Your task to perform on an android device: When is my next appointment? Image 0: 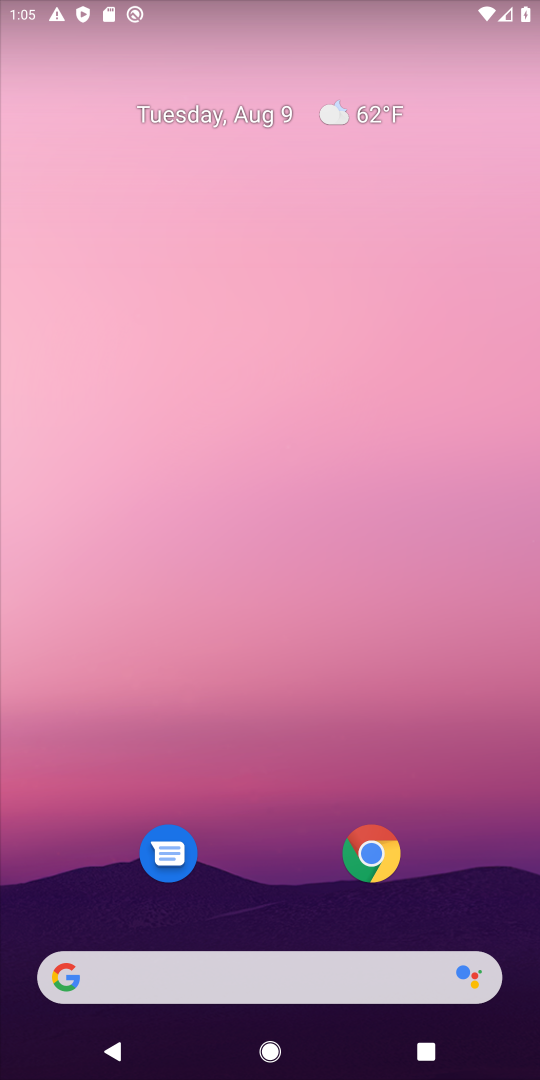
Step 0: drag from (297, 863) to (326, 17)
Your task to perform on an android device: When is my next appointment? Image 1: 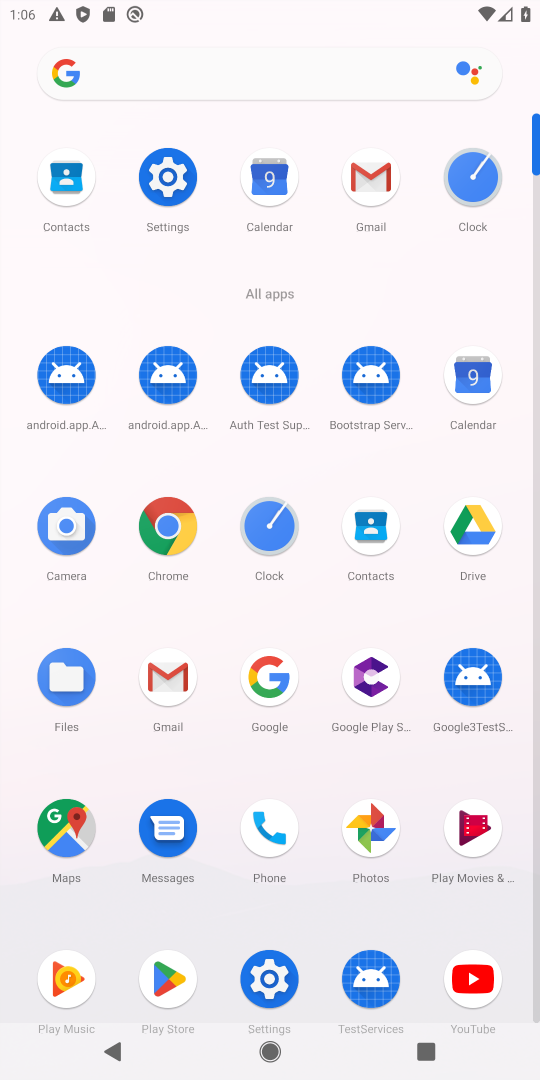
Step 1: click (478, 374)
Your task to perform on an android device: When is my next appointment? Image 2: 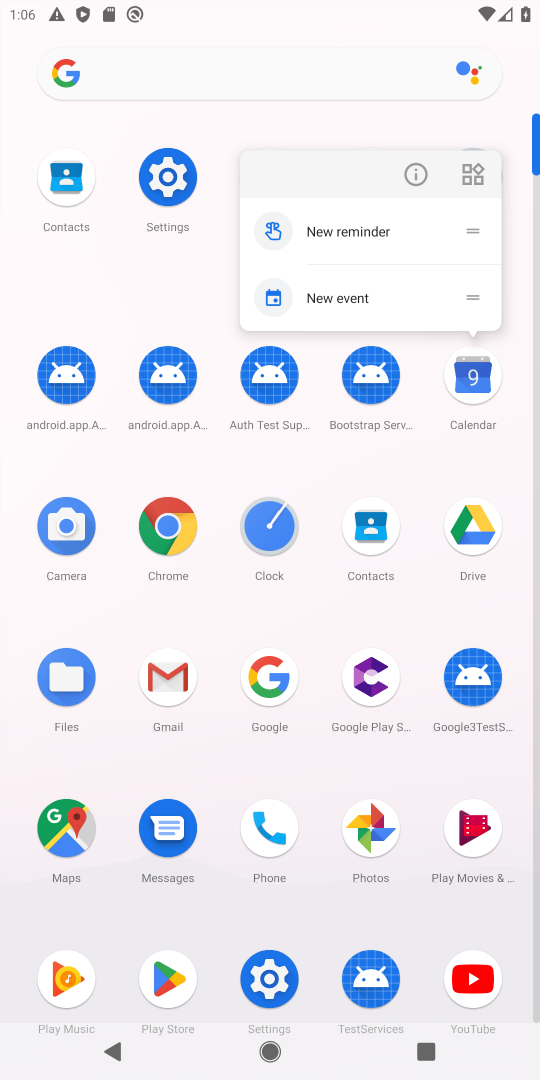
Step 2: click (473, 393)
Your task to perform on an android device: When is my next appointment? Image 3: 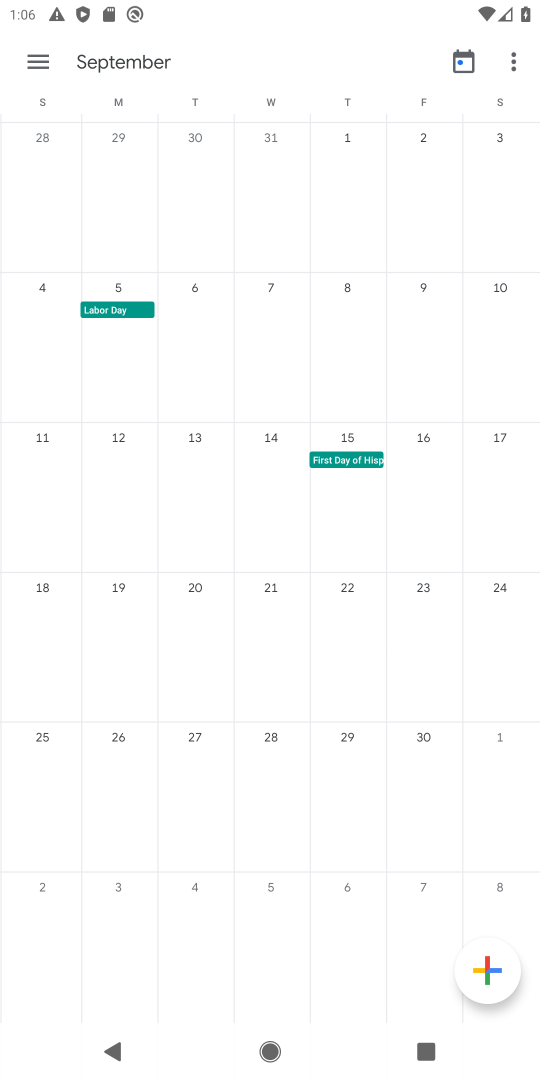
Step 3: click (24, 51)
Your task to perform on an android device: When is my next appointment? Image 4: 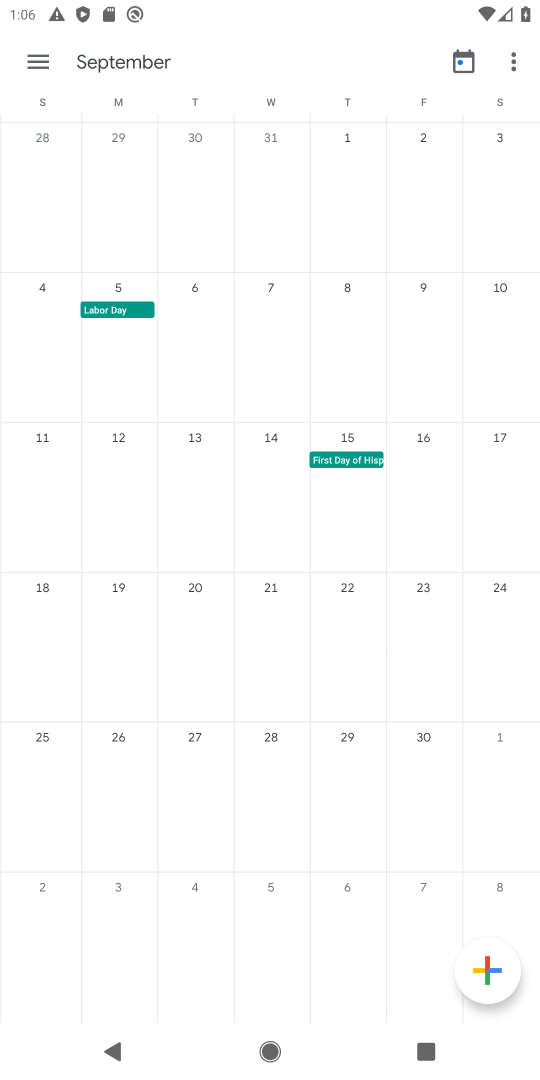
Step 4: click (36, 63)
Your task to perform on an android device: When is my next appointment? Image 5: 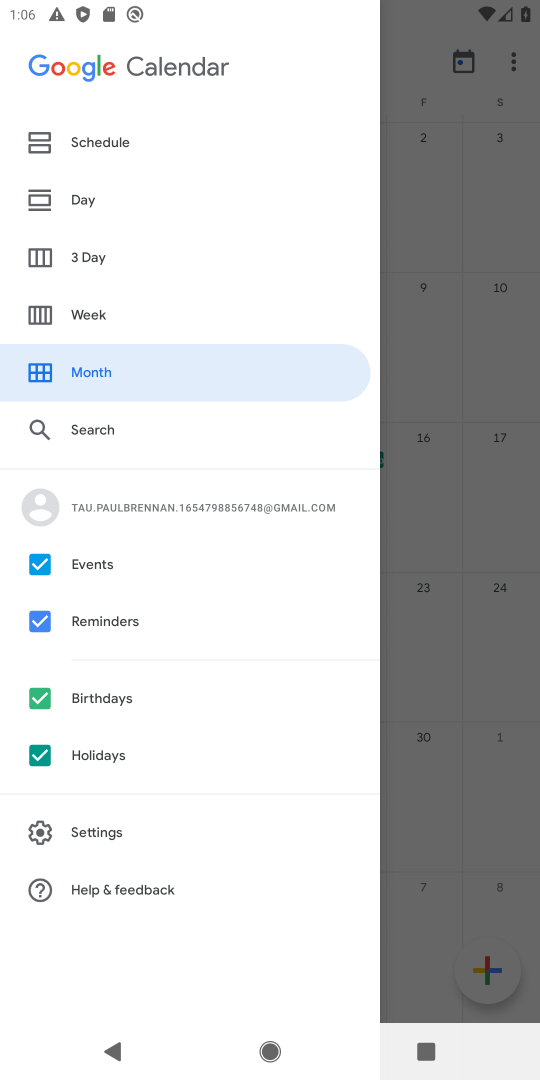
Step 5: click (81, 138)
Your task to perform on an android device: When is my next appointment? Image 6: 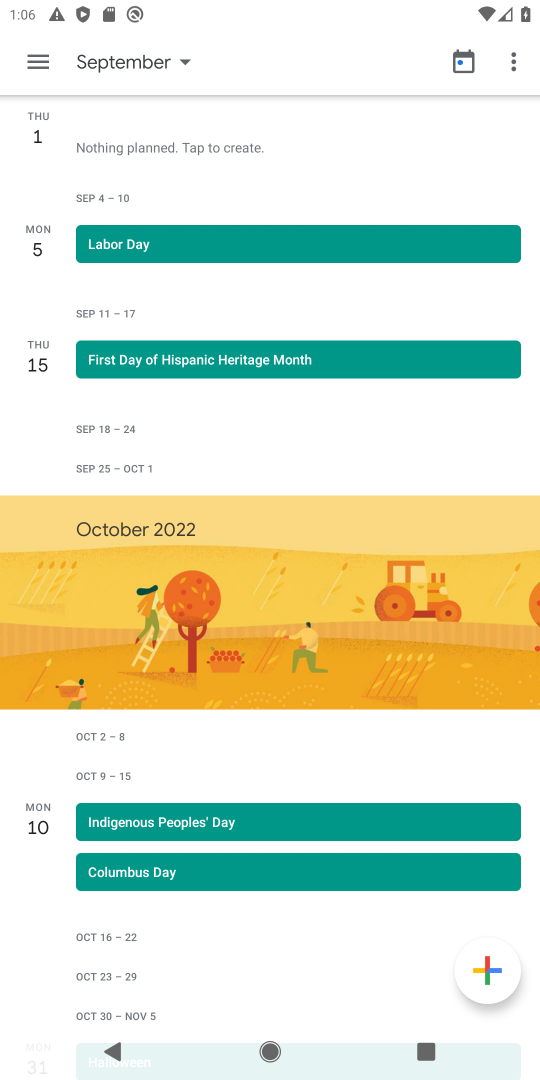
Step 6: task complete